Your task to perform on an android device: turn vacation reply on in the gmail app Image 0: 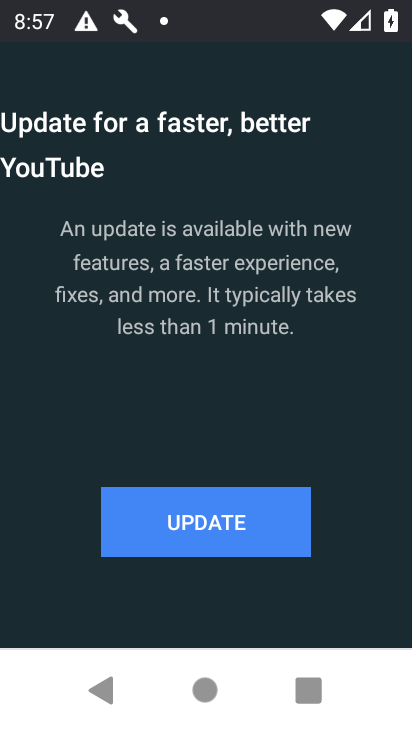
Step 0: press back button
Your task to perform on an android device: turn vacation reply on in the gmail app Image 1: 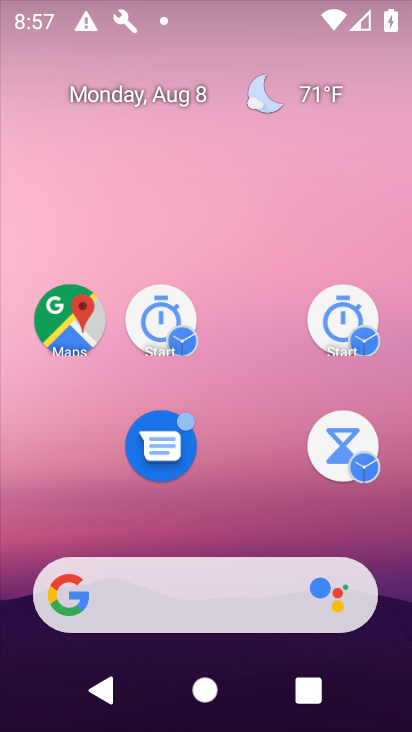
Step 1: drag from (212, 311) to (199, 140)
Your task to perform on an android device: turn vacation reply on in the gmail app Image 2: 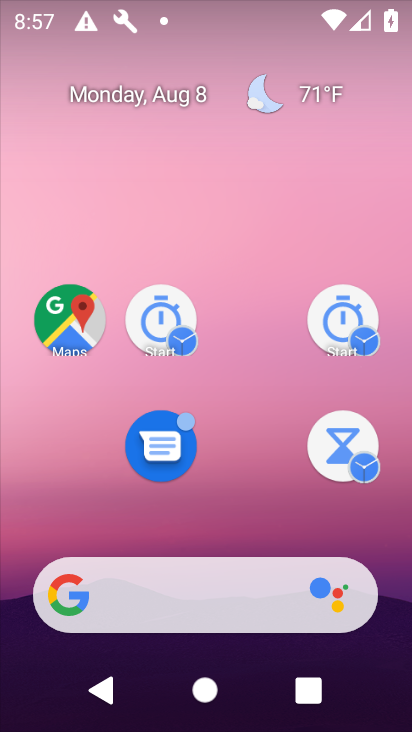
Step 2: click (242, 219)
Your task to perform on an android device: turn vacation reply on in the gmail app Image 3: 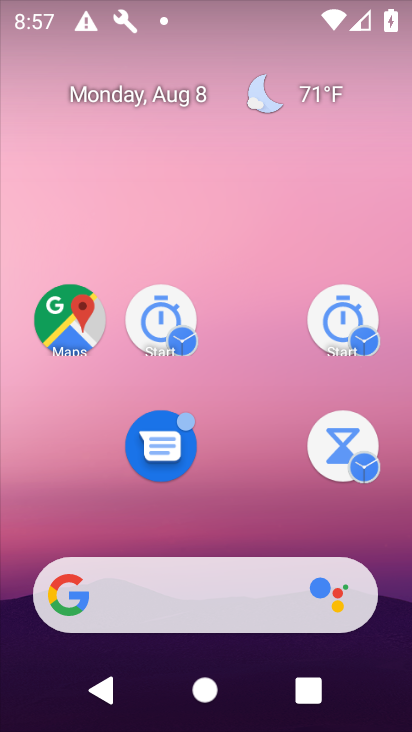
Step 3: drag from (255, 631) to (222, 103)
Your task to perform on an android device: turn vacation reply on in the gmail app Image 4: 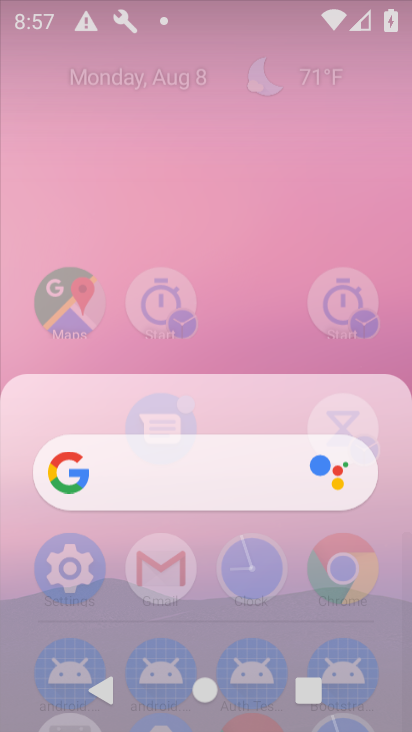
Step 4: drag from (222, 433) to (189, 149)
Your task to perform on an android device: turn vacation reply on in the gmail app Image 5: 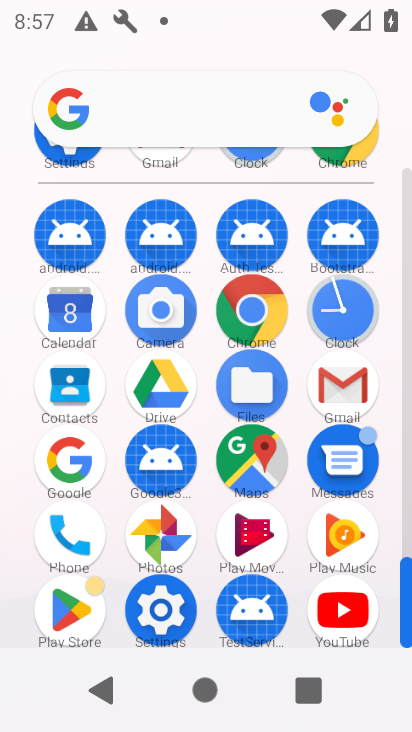
Step 5: click (332, 195)
Your task to perform on an android device: turn vacation reply on in the gmail app Image 6: 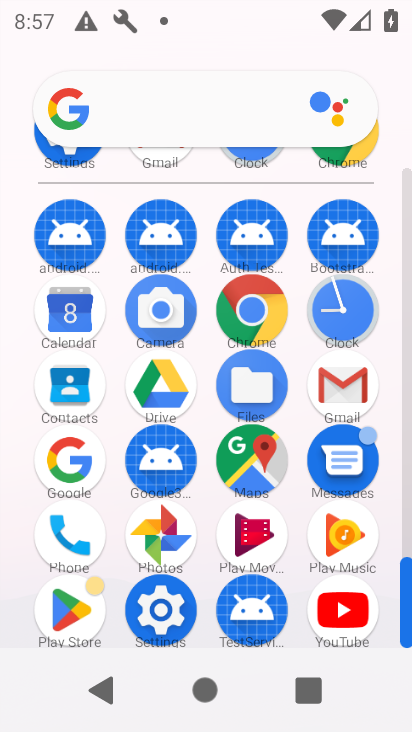
Step 6: click (270, 301)
Your task to perform on an android device: turn vacation reply on in the gmail app Image 7: 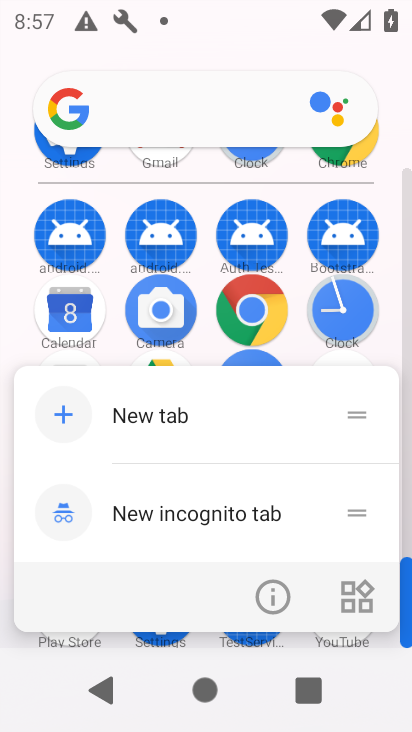
Step 7: click (158, 637)
Your task to perform on an android device: turn vacation reply on in the gmail app Image 8: 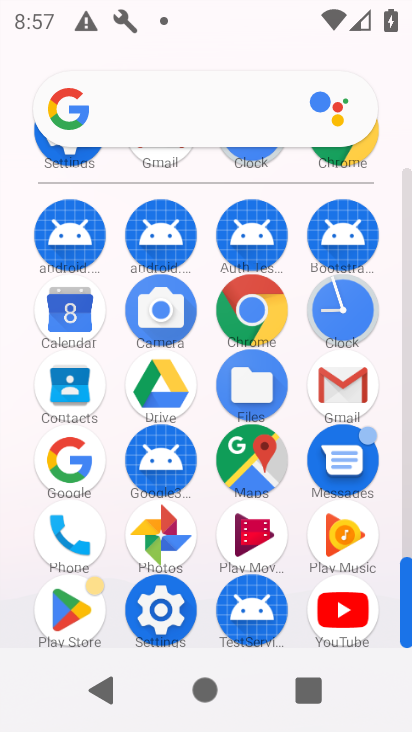
Step 8: click (130, 643)
Your task to perform on an android device: turn vacation reply on in the gmail app Image 9: 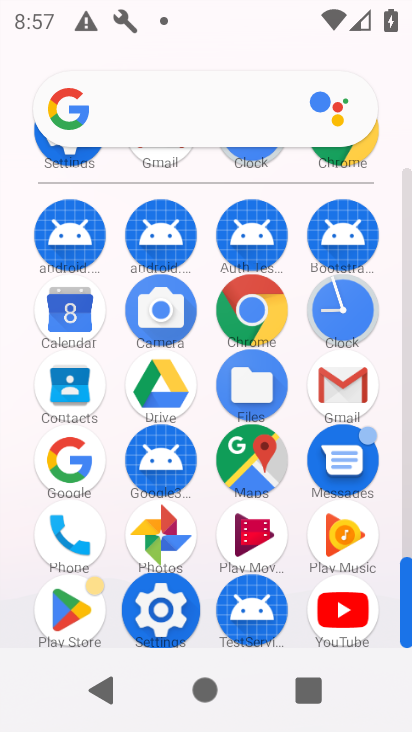
Step 9: click (333, 385)
Your task to perform on an android device: turn vacation reply on in the gmail app Image 10: 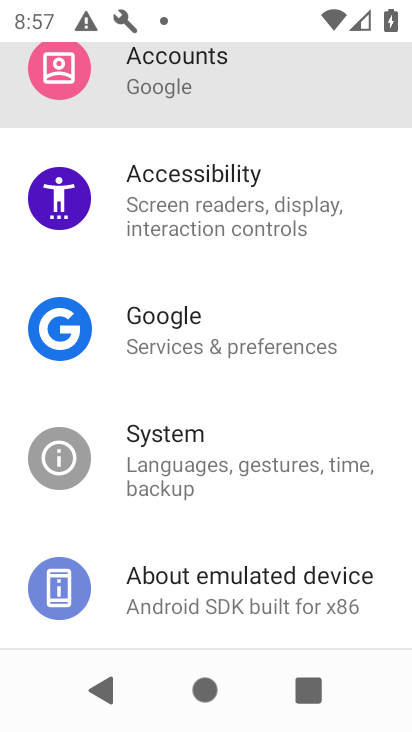
Step 10: click (335, 384)
Your task to perform on an android device: turn vacation reply on in the gmail app Image 11: 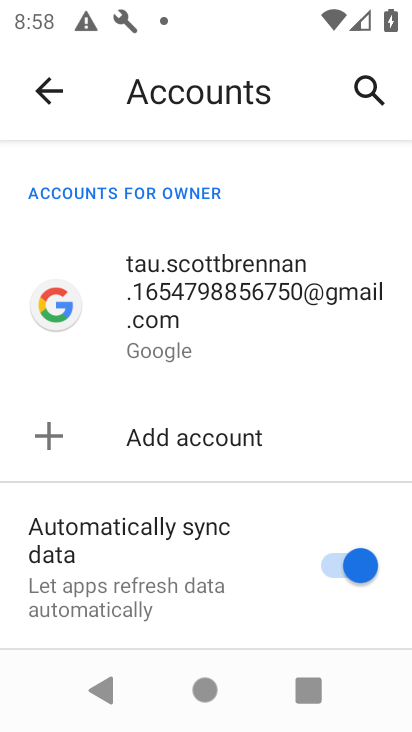
Step 11: press back button
Your task to perform on an android device: turn vacation reply on in the gmail app Image 12: 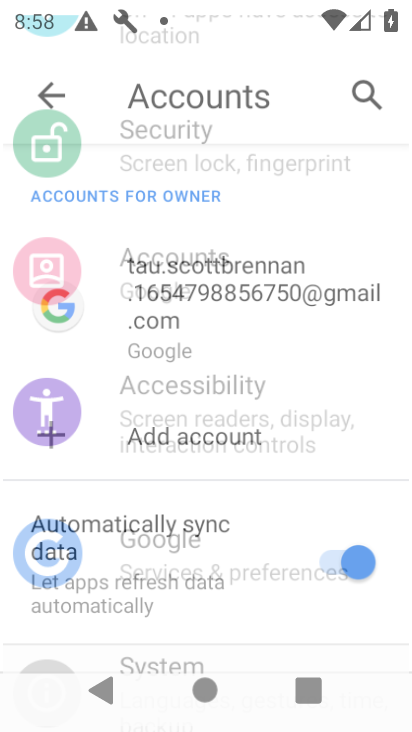
Step 12: press back button
Your task to perform on an android device: turn vacation reply on in the gmail app Image 13: 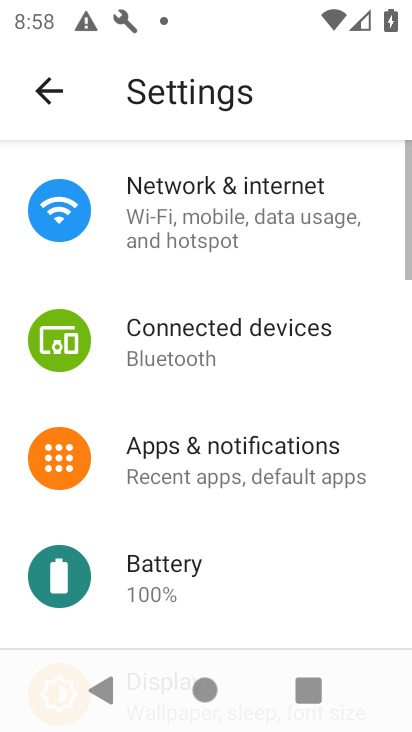
Step 13: click (50, 98)
Your task to perform on an android device: turn vacation reply on in the gmail app Image 14: 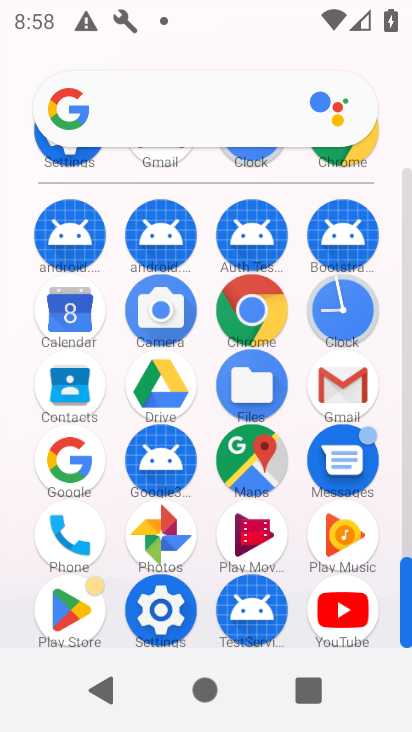
Step 14: click (339, 379)
Your task to perform on an android device: turn vacation reply on in the gmail app Image 15: 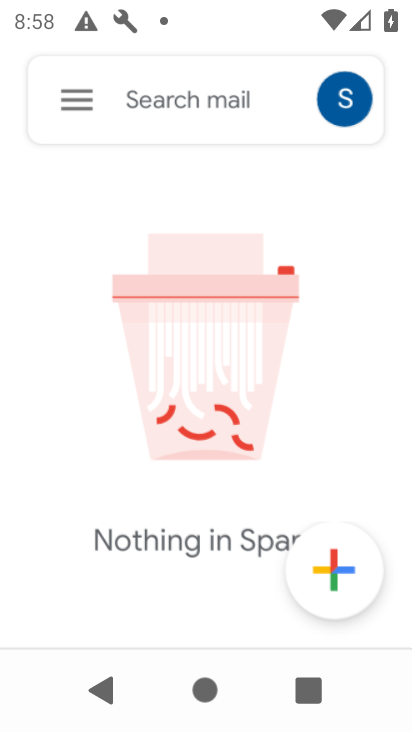
Step 15: click (341, 379)
Your task to perform on an android device: turn vacation reply on in the gmail app Image 16: 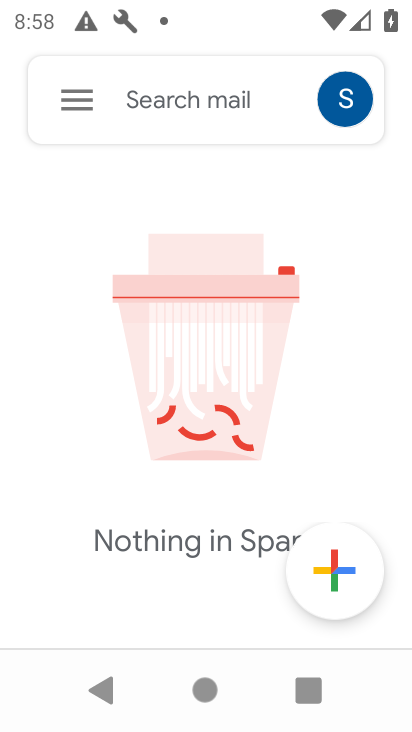
Step 16: click (70, 105)
Your task to perform on an android device: turn vacation reply on in the gmail app Image 17: 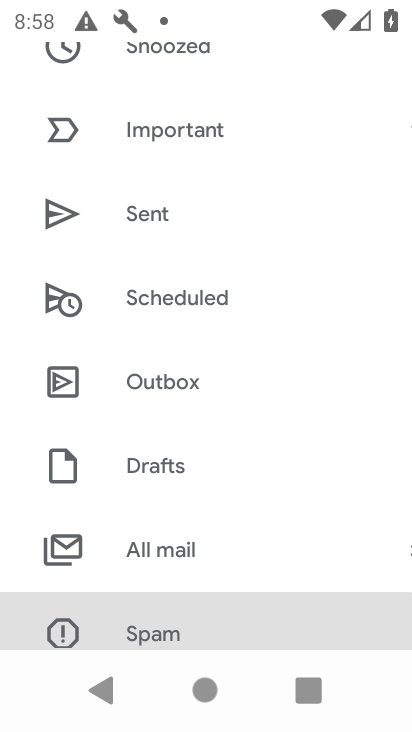
Step 17: drag from (100, 114) to (205, 64)
Your task to perform on an android device: turn vacation reply on in the gmail app Image 18: 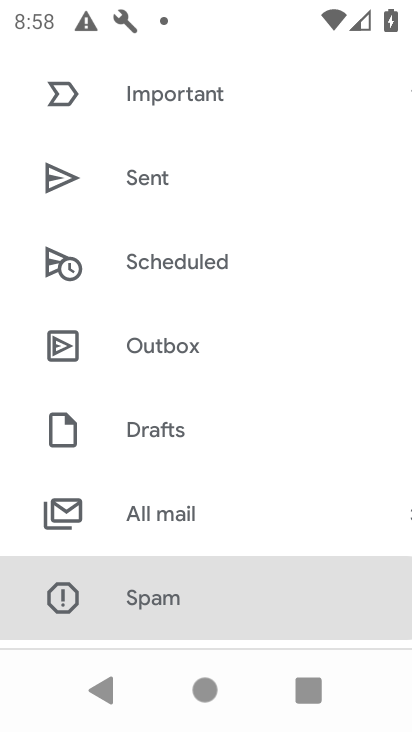
Step 18: drag from (191, 493) to (201, 217)
Your task to perform on an android device: turn vacation reply on in the gmail app Image 19: 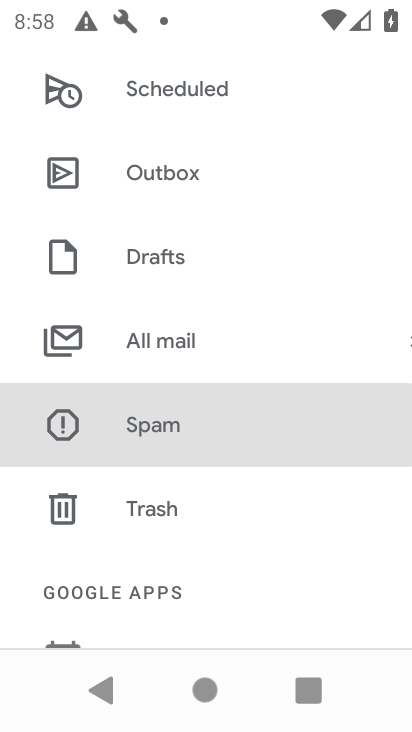
Step 19: drag from (167, 523) to (169, 125)
Your task to perform on an android device: turn vacation reply on in the gmail app Image 20: 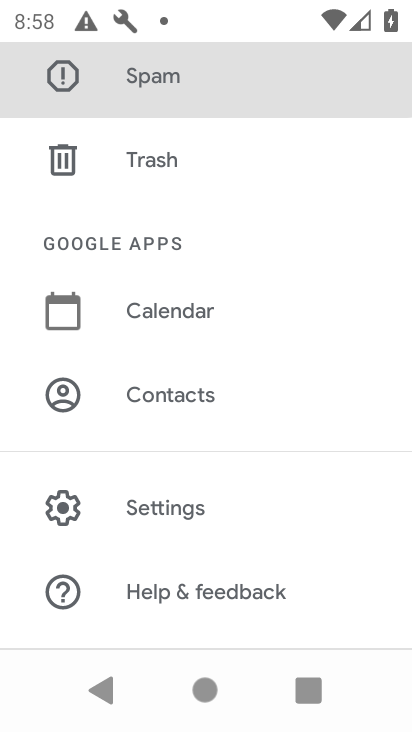
Step 20: drag from (190, 482) to (190, 217)
Your task to perform on an android device: turn vacation reply on in the gmail app Image 21: 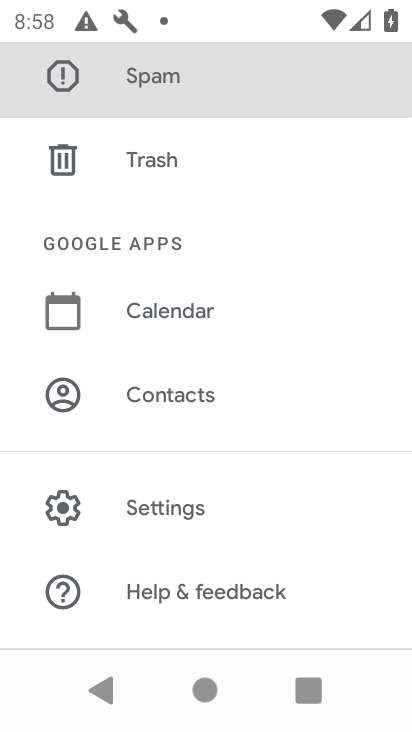
Step 21: drag from (193, 474) to (193, 189)
Your task to perform on an android device: turn vacation reply on in the gmail app Image 22: 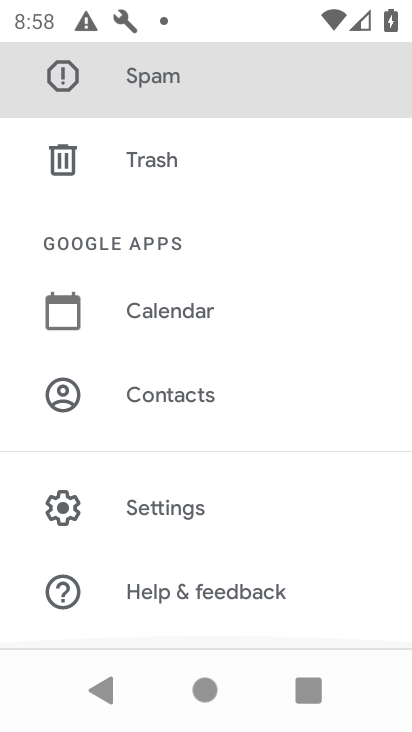
Step 22: click (160, 506)
Your task to perform on an android device: turn vacation reply on in the gmail app Image 23: 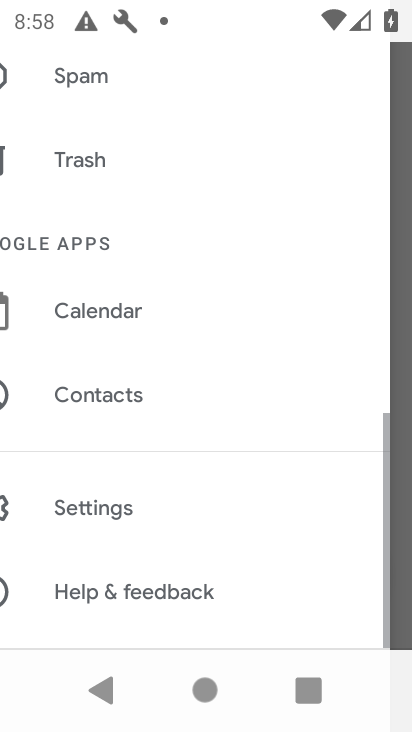
Step 23: click (159, 505)
Your task to perform on an android device: turn vacation reply on in the gmail app Image 24: 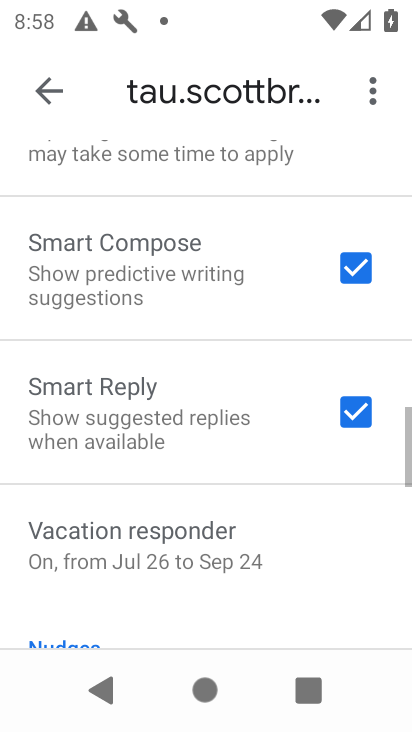
Step 24: click (223, 542)
Your task to perform on an android device: turn vacation reply on in the gmail app Image 25: 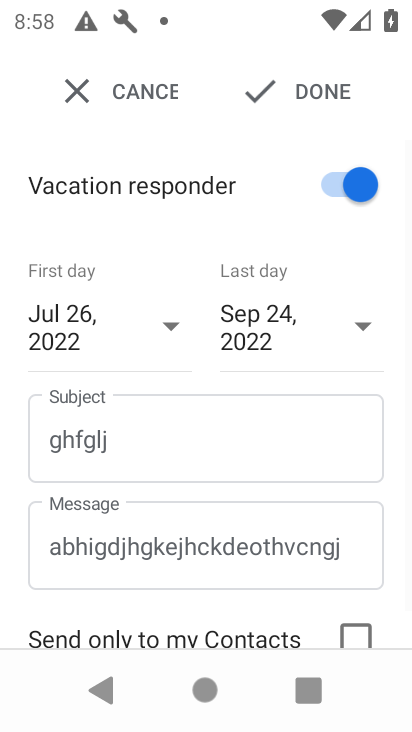
Step 25: task complete